Your task to perform on an android device: check storage Image 0: 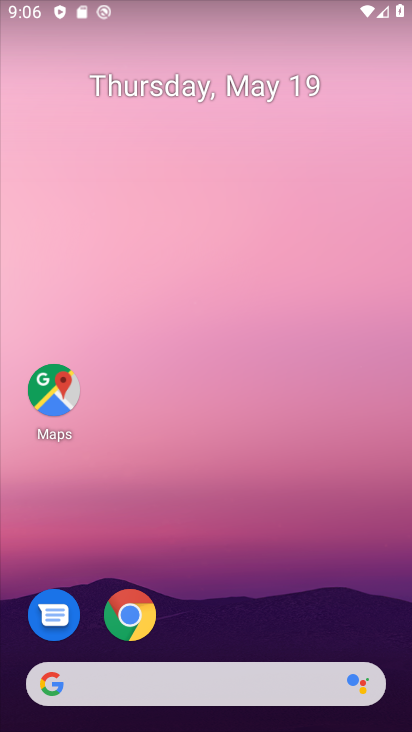
Step 0: drag from (282, 589) to (232, 49)
Your task to perform on an android device: check storage Image 1: 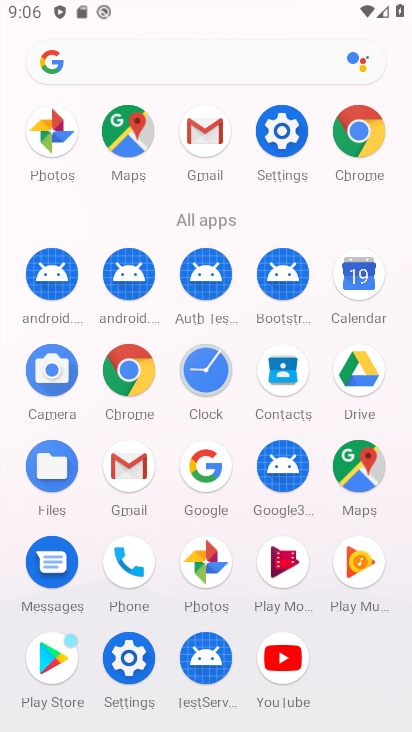
Step 1: click (277, 122)
Your task to perform on an android device: check storage Image 2: 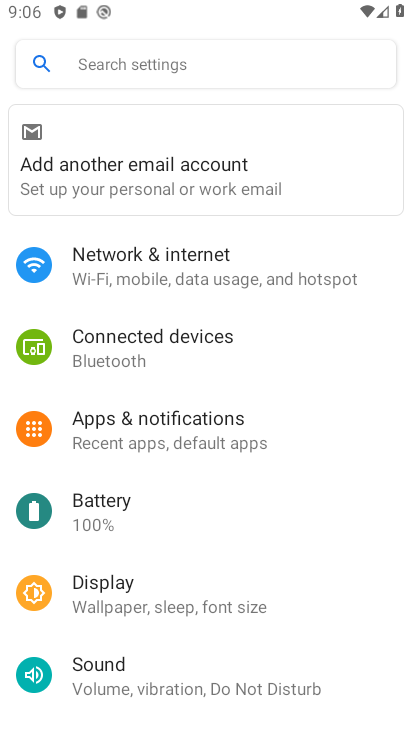
Step 2: drag from (131, 662) to (96, 475)
Your task to perform on an android device: check storage Image 3: 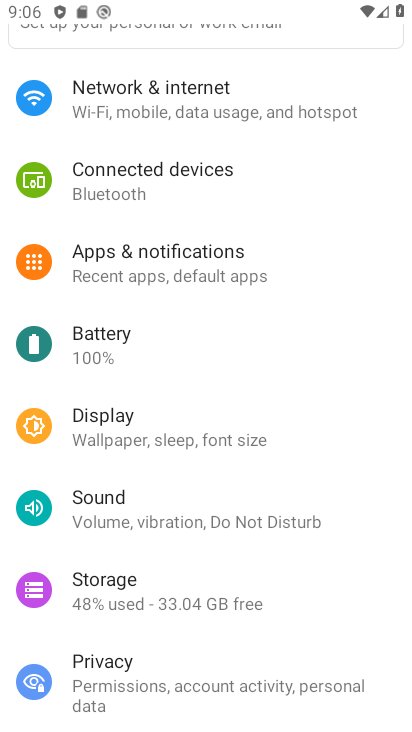
Step 3: click (180, 583)
Your task to perform on an android device: check storage Image 4: 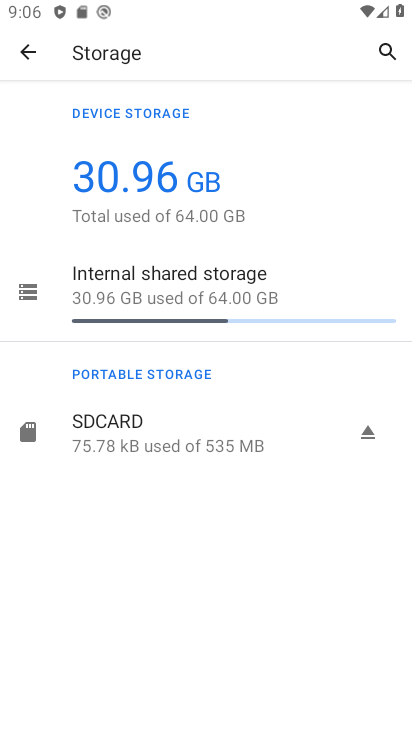
Step 4: task complete